Your task to perform on an android device: Open display settings Image 0: 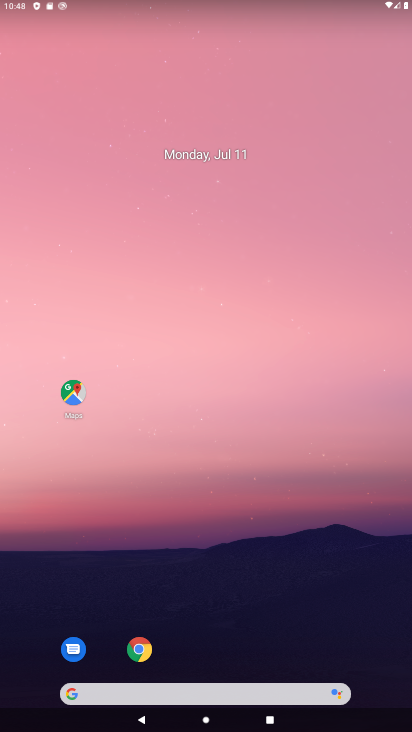
Step 0: drag from (230, 615) to (298, 67)
Your task to perform on an android device: Open display settings Image 1: 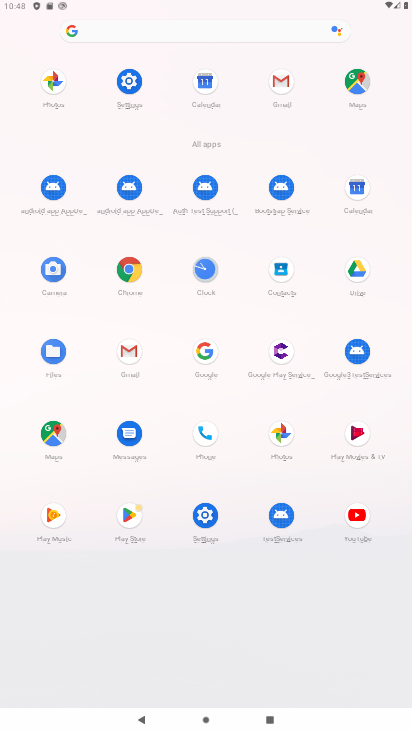
Step 1: click (131, 80)
Your task to perform on an android device: Open display settings Image 2: 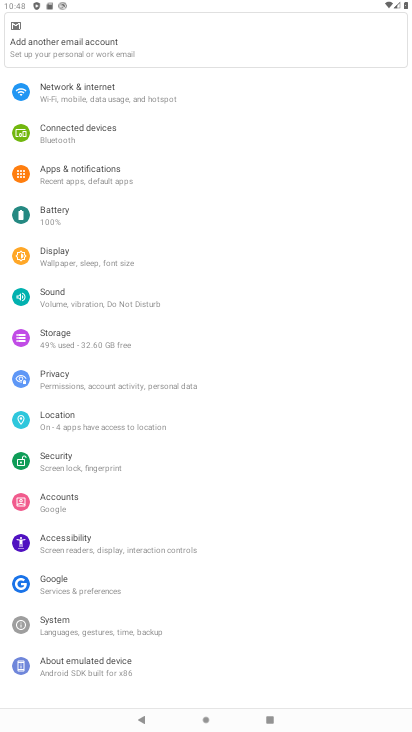
Step 2: click (82, 260)
Your task to perform on an android device: Open display settings Image 3: 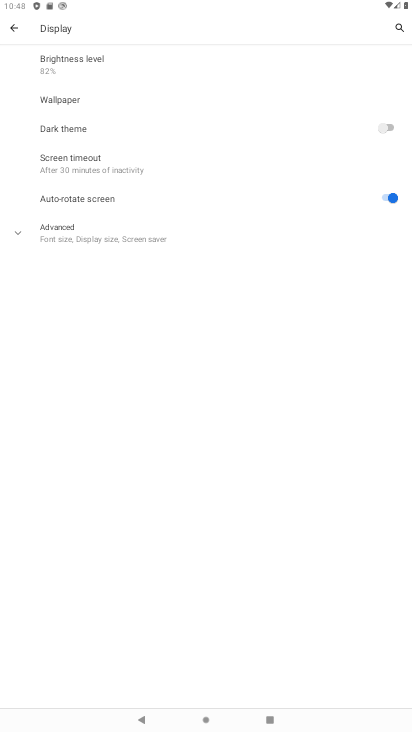
Step 3: task complete